Your task to perform on an android device: Go to Reddit.com Image 0: 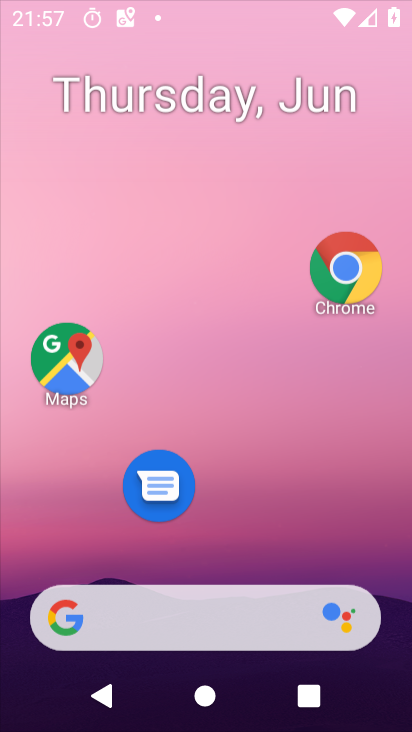
Step 0: drag from (272, 36) to (114, 12)
Your task to perform on an android device: Go to Reddit.com Image 1: 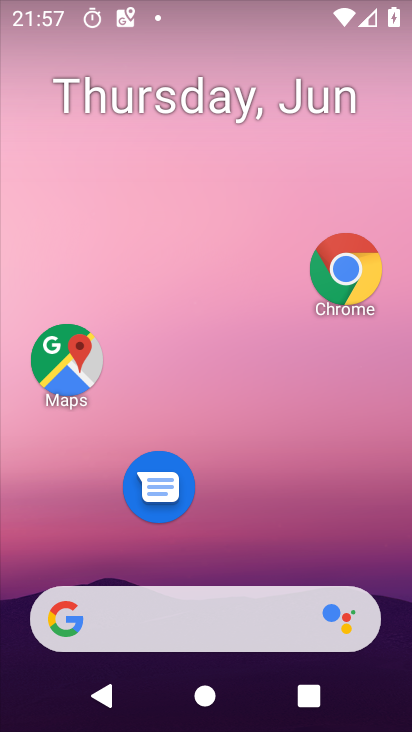
Step 1: drag from (207, 533) to (224, 219)
Your task to perform on an android device: Go to Reddit.com Image 2: 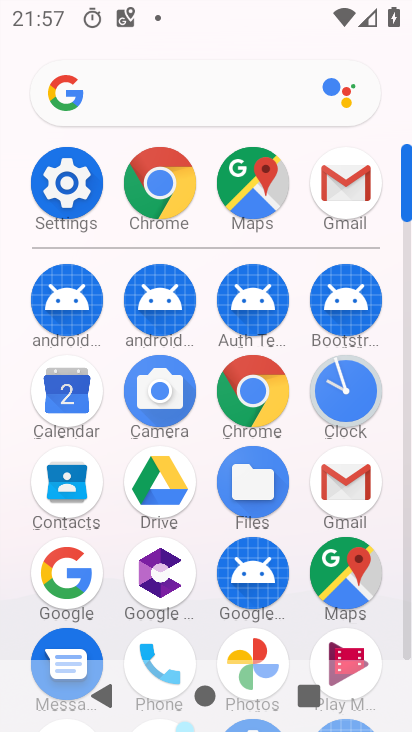
Step 2: click (123, 81)
Your task to perform on an android device: Go to Reddit.com Image 3: 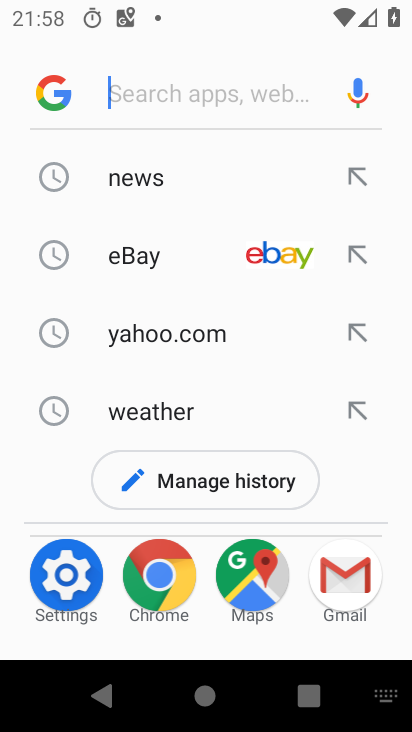
Step 3: type "Reddit.com"
Your task to perform on an android device: Go to Reddit.com Image 4: 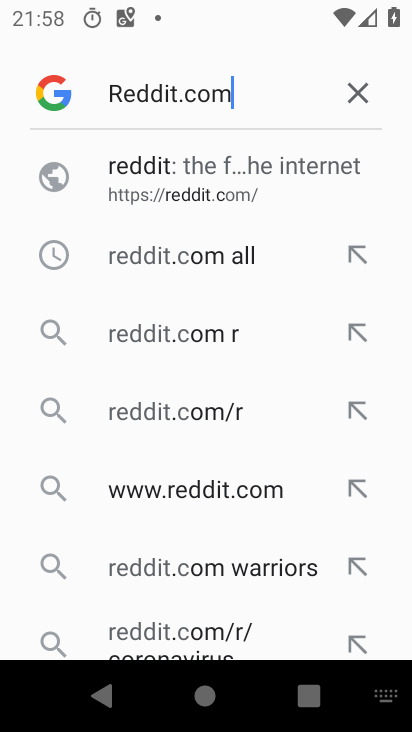
Step 4: type ""
Your task to perform on an android device: Go to Reddit.com Image 5: 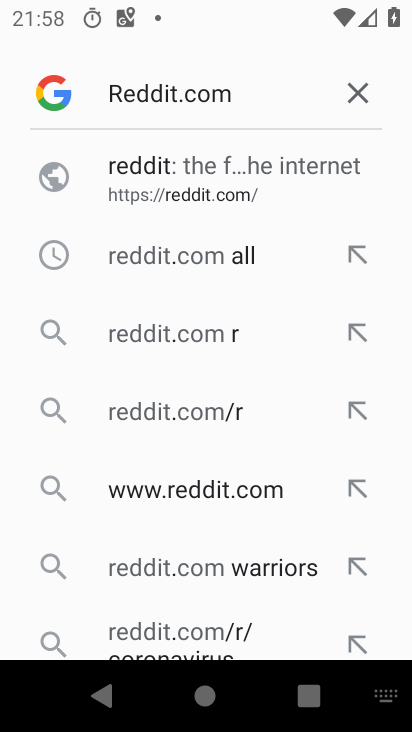
Step 5: click (185, 184)
Your task to perform on an android device: Go to Reddit.com Image 6: 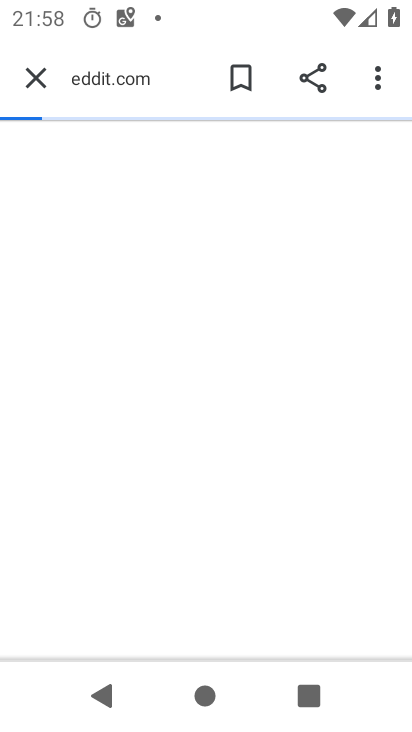
Step 6: task complete